Your task to perform on an android device: delete browsing data in the chrome app Image 0: 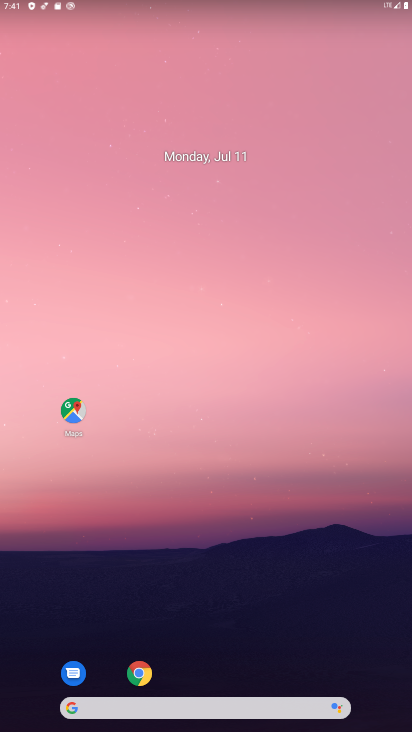
Step 0: click (136, 675)
Your task to perform on an android device: delete browsing data in the chrome app Image 1: 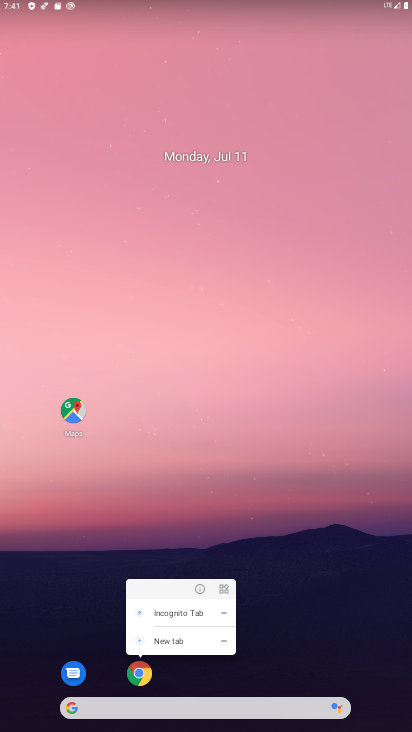
Step 1: click (137, 673)
Your task to perform on an android device: delete browsing data in the chrome app Image 2: 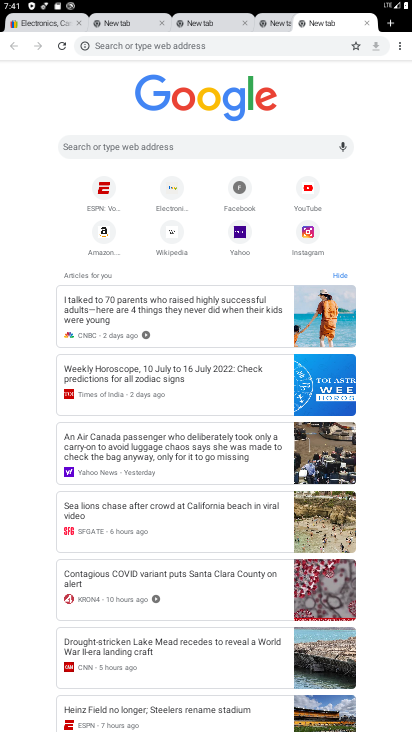
Step 2: click (402, 43)
Your task to perform on an android device: delete browsing data in the chrome app Image 3: 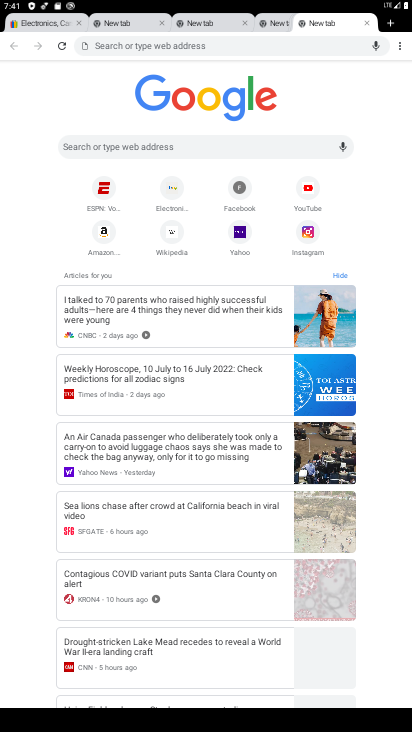
Step 3: click (404, 46)
Your task to perform on an android device: delete browsing data in the chrome app Image 4: 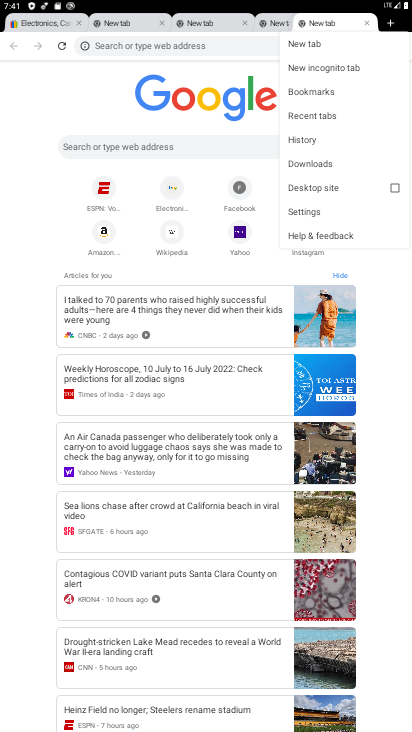
Step 4: click (297, 139)
Your task to perform on an android device: delete browsing data in the chrome app Image 5: 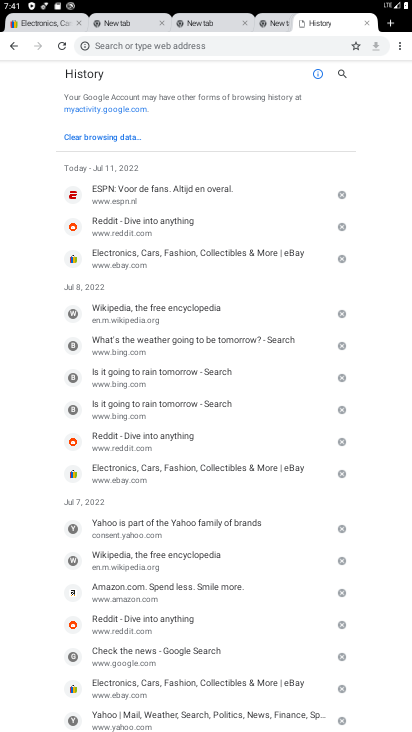
Step 5: click (133, 138)
Your task to perform on an android device: delete browsing data in the chrome app Image 6: 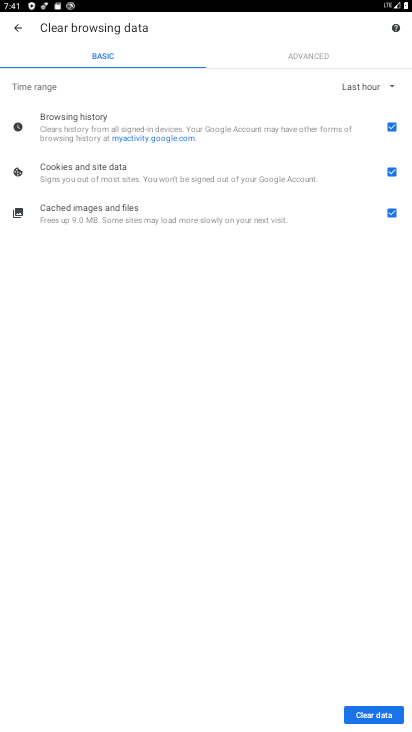
Step 6: click (359, 81)
Your task to perform on an android device: delete browsing data in the chrome app Image 7: 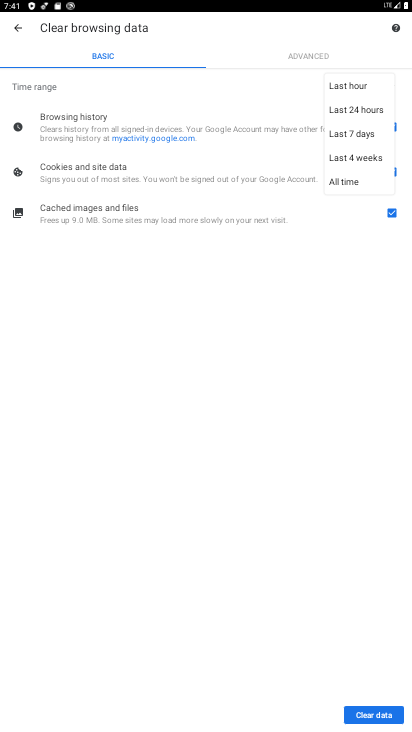
Step 7: click (345, 186)
Your task to perform on an android device: delete browsing data in the chrome app Image 8: 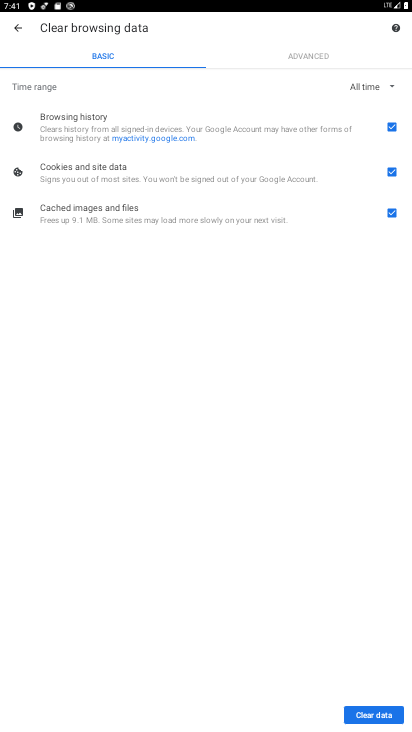
Step 8: click (374, 715)
Your task to perform on an android device: delete browsing data in the chrome app Image 9: 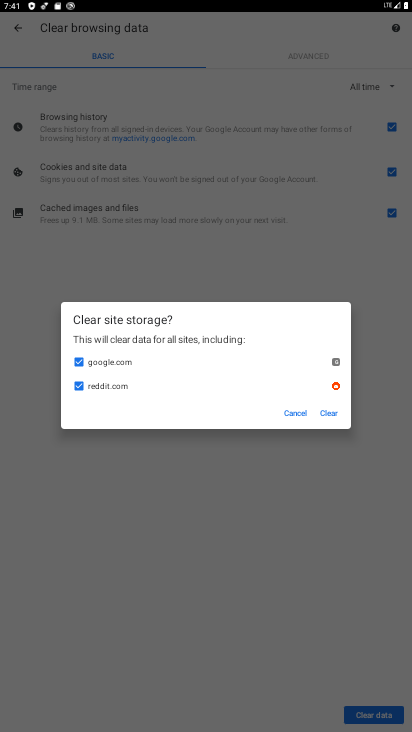
Step 9: click (320, 412)
Your task to perform on an android device: delete browsing data in the chrome app Image 10: 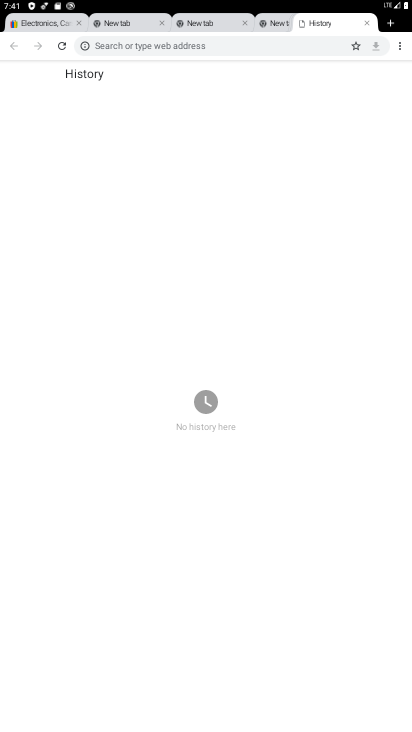
Step 10: task complete